Your task to perform on an android device: Search for flights from Tokyo to NYC Image 0: 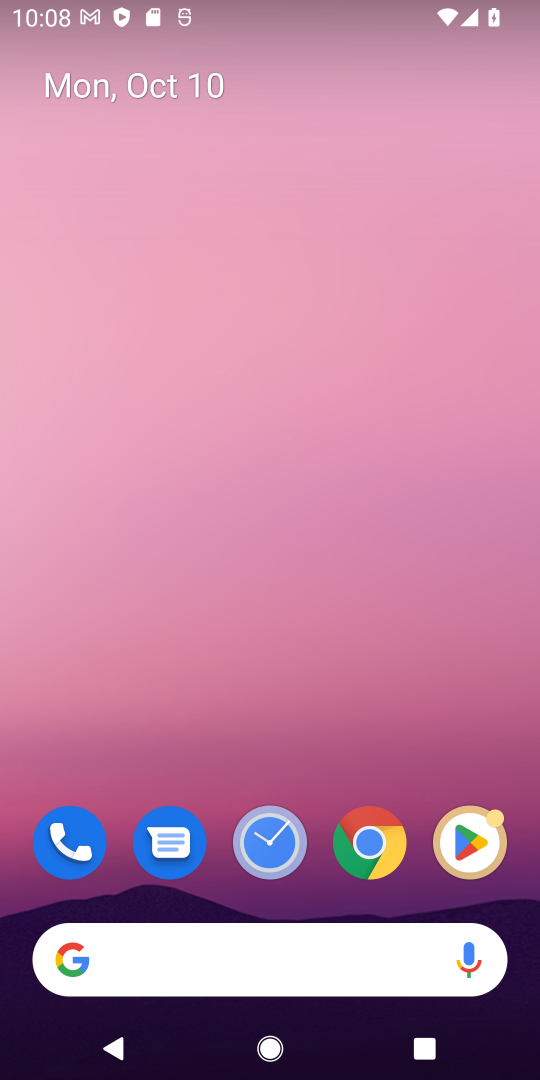
Step 0: click (371, 841)
Your task to perform on an android device: Search for flights from Tokyo to NYC Image 1: 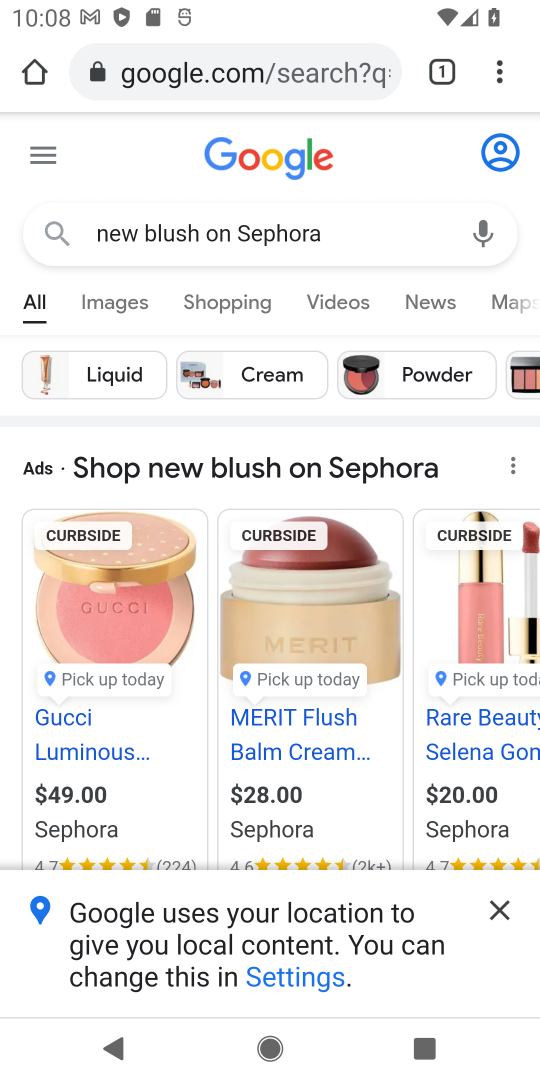
Step 1: click (343, 226)
Your task to perform on an android device: Search for flights from Tokyo to NYC Image 2: 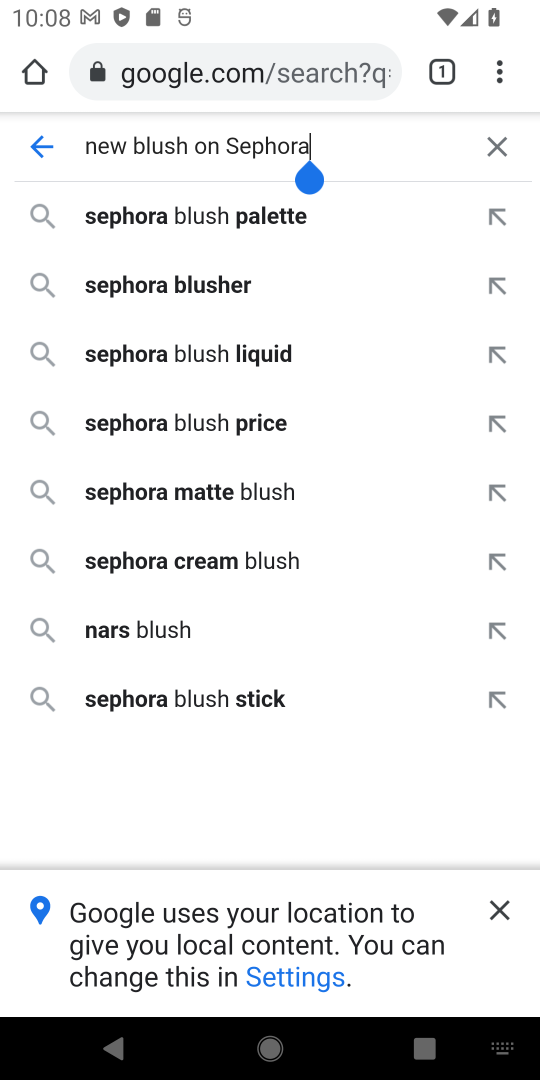
Step 2: click (493, 149)
Your task to perform on an android device: Search for flights from Tokyo to NYC Image 3: 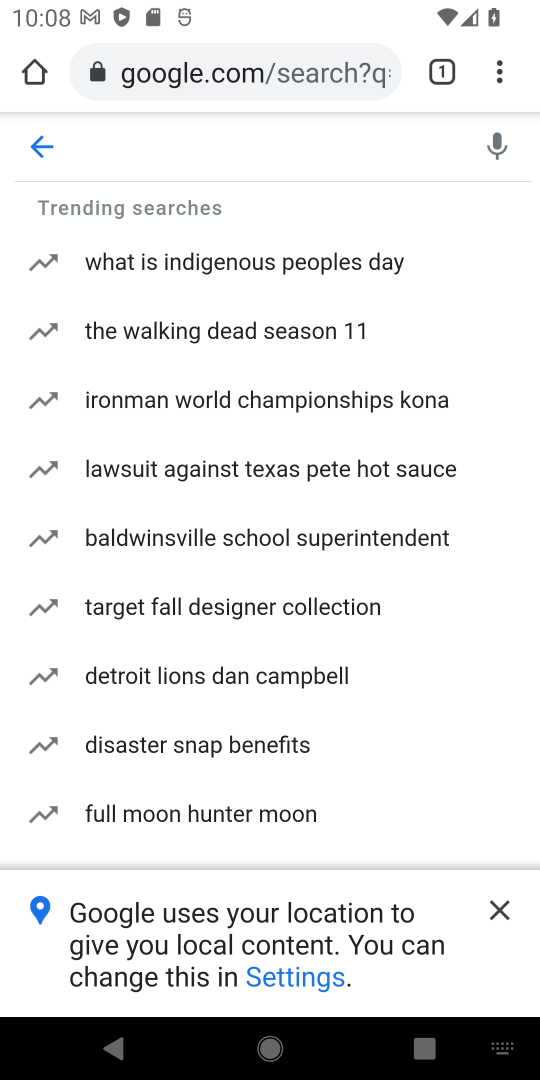
Step 3: type "tokyo to nyc  flights"
Your task to perform on an android device: Search for flights from Tokyo to NYC Image 4: 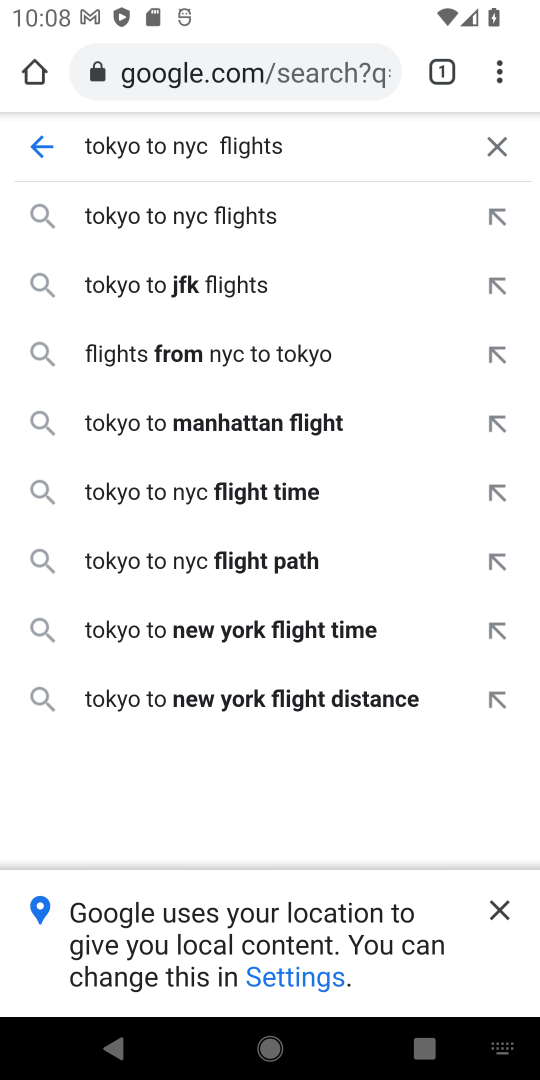
Step 4: click (182, 220)
Your task to perform on an android device: Search for flights from Tokyo to NYC Image 5: 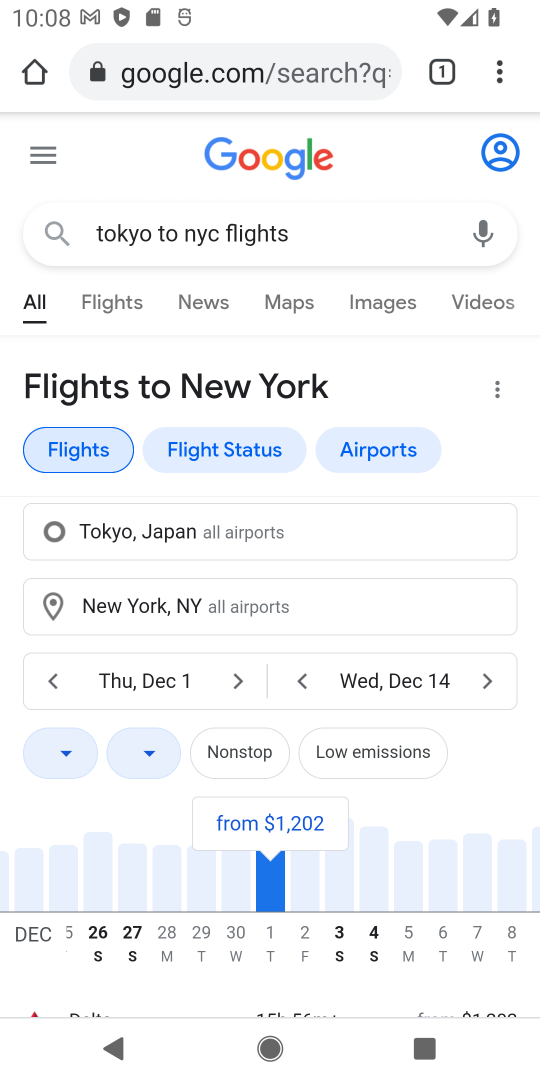
Step 5: click (116, 311)
Your task to perform on an android device: Search for flights from Tokyo to NYC Image 6: 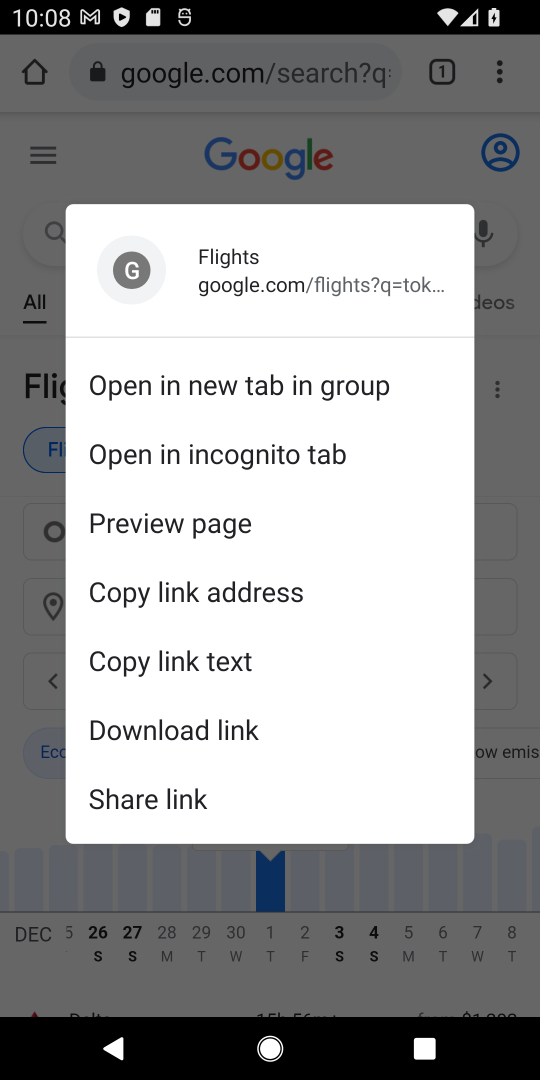
Step 6: click (17, 277)
Your task to perform on an android device: Search for flights from Tokyo to NYC Image 7: 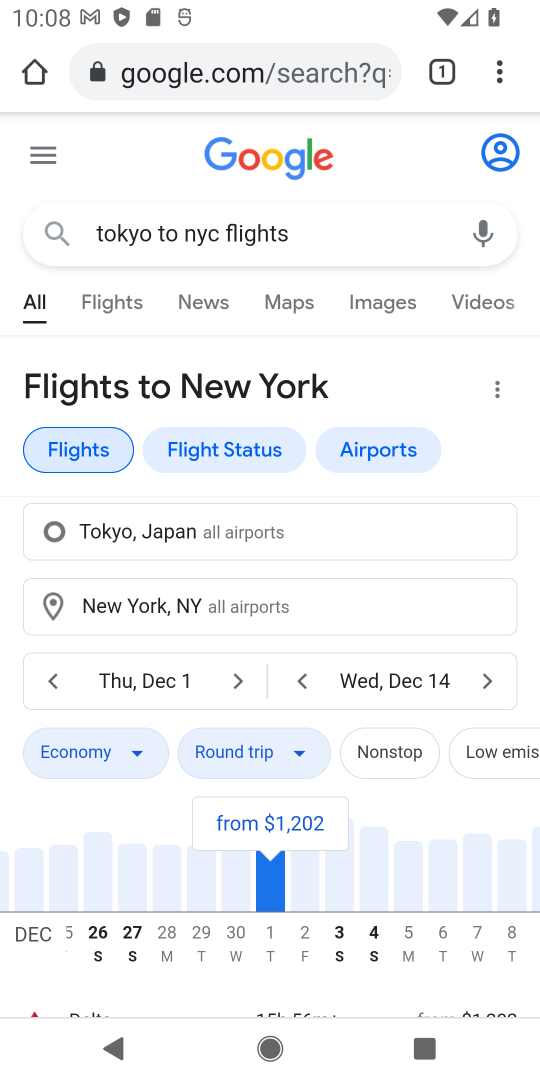
Step 7: click (112, 303)
Your task to perform on an android device: Search for flights from Tokyo to NYC Image 8: 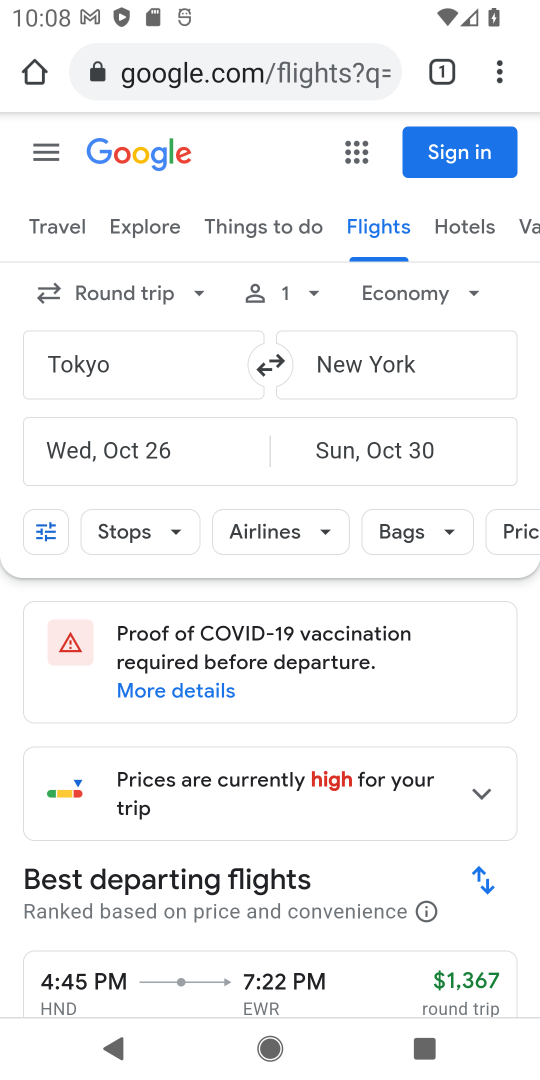
Step 8: task complete